Your task to perform on an android device: Go to internet settings Image 0: 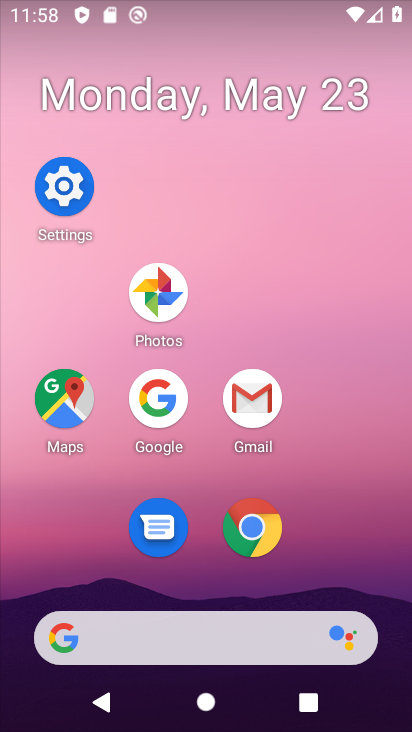
Step 0: click (82, 170)
Your task to perform on an android device: Go to internet settings Image 1: 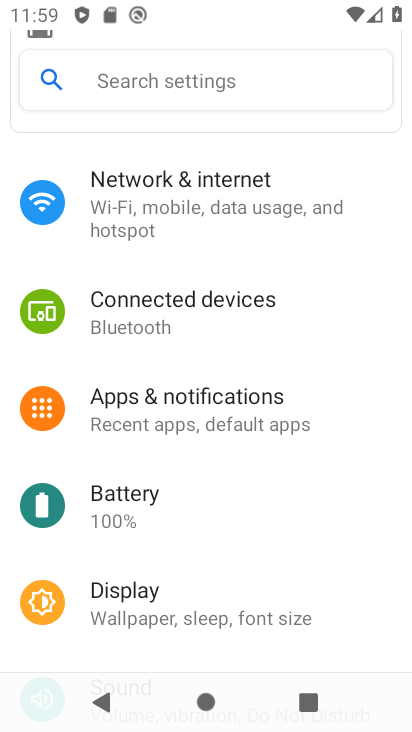
Step 1: click (208, 228)
Your task to perform on an android device: Go to internet settings Image 2: 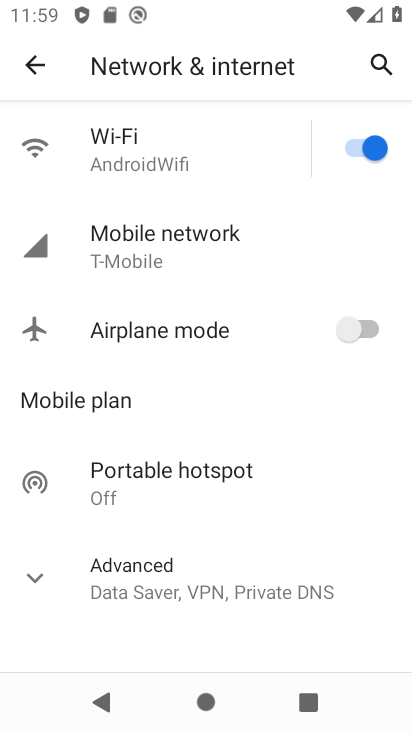
Step 2: click (208, 228)
Your task to perform on an android device: Go to internet settings Image 3: 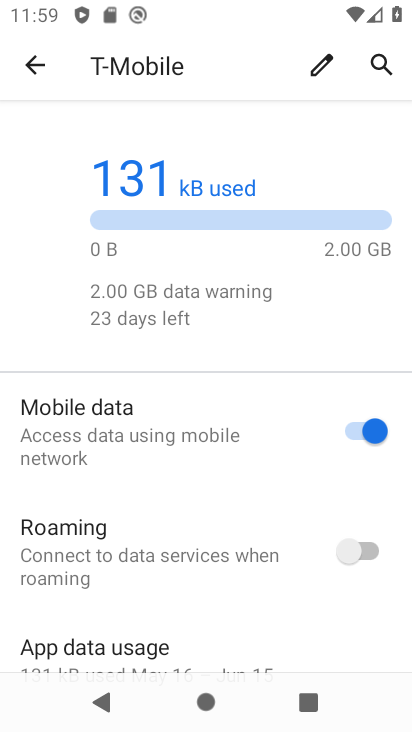
Step 3: task complete